Your task to perform on an android device: move a message to another label in the gmail app Image 0: 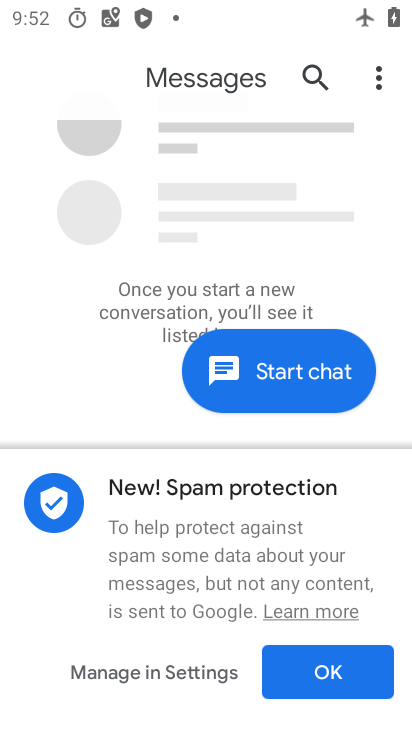
Step 0: press home button
Your task to perform on an android device: move a message to another label in the gmail app Image 1: 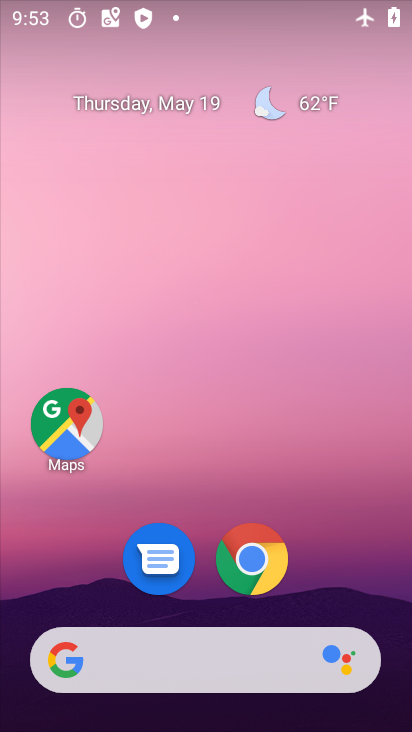
Step 1: drag from (312, 568) to (315, 249)
Your task to perform on an android device: move a message to another label in the gmail app Image 2: 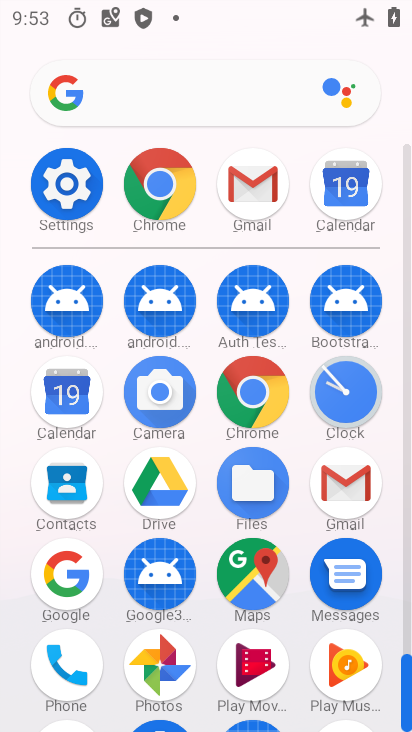
Step 2: click (250, 196)
Your task to perform on an android device: move a message to another label in the gmail app Image 3: 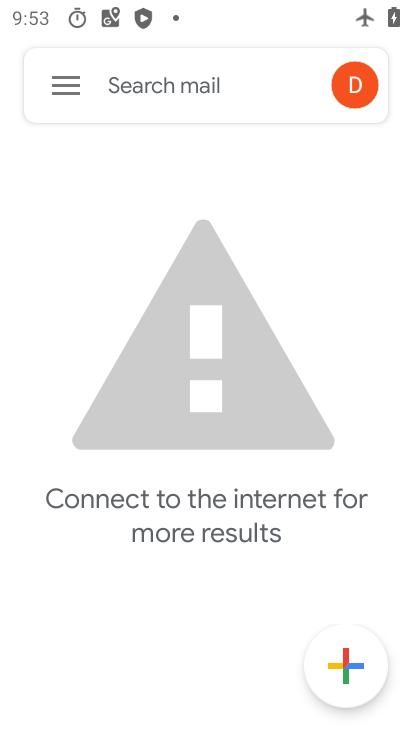
Step 3: task complete